Your task to perform on an android device: What's on my calendar tomorrow? Image 0: 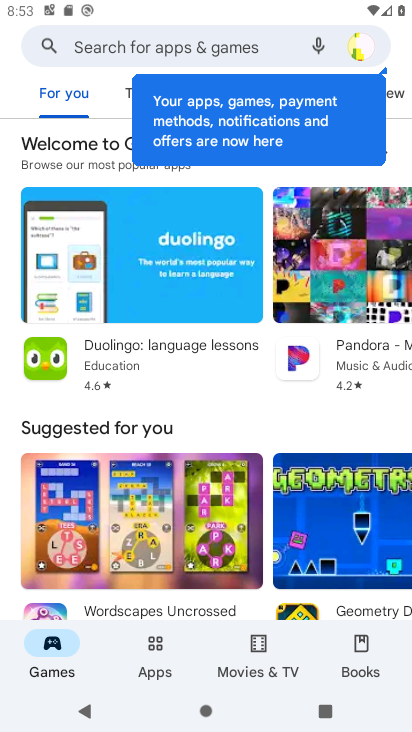
Step 0: press home button
Your task to perform on an android device: What's on my calendar tomorrow? Image 1: 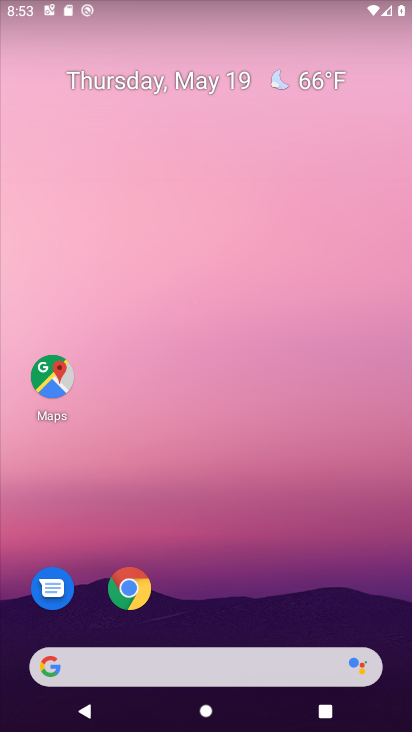
Step 1: drag from (381, 531) to (373, 181)
Your task to perform on an android device: What's on my calendar tomorrow? Image 2: 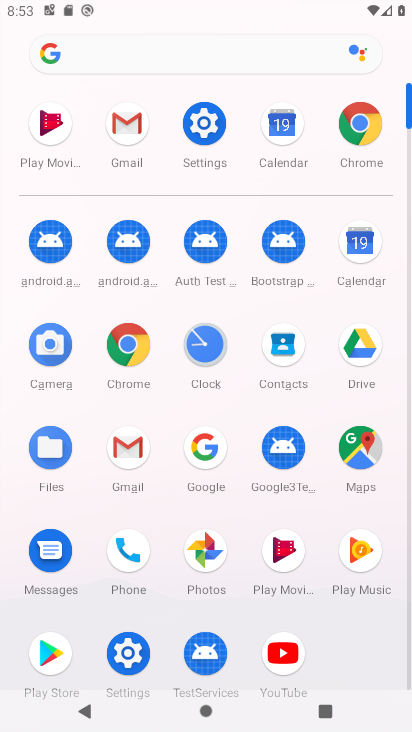
Step 2: drag from (370, 633) to (345, 495)
Your task to perform on an android device: What's on my calendar tomorrow? Image 3: 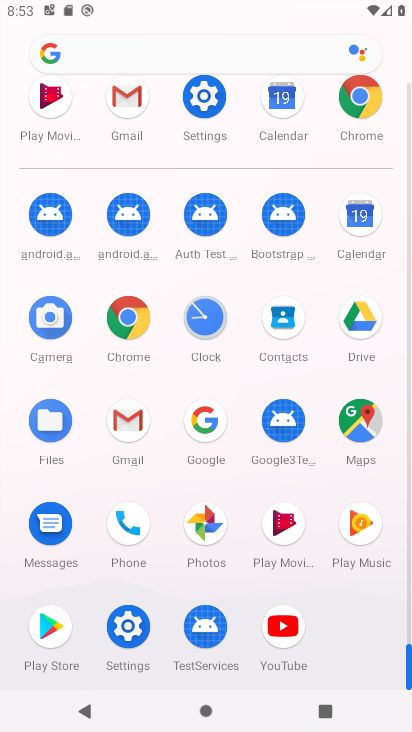
Step 3: drag from (305, 314) to (294, 400)
Your task to perform on an android device: What's on my calendar tomorrow? Image 4: 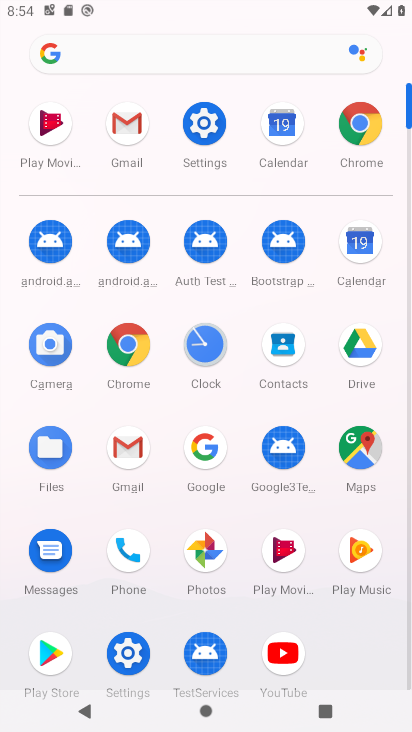
Step 4: drag from (302, 293) to (290, 397)
Your task to perform on an android device: What's on my calendar tomorrow? Image 5: 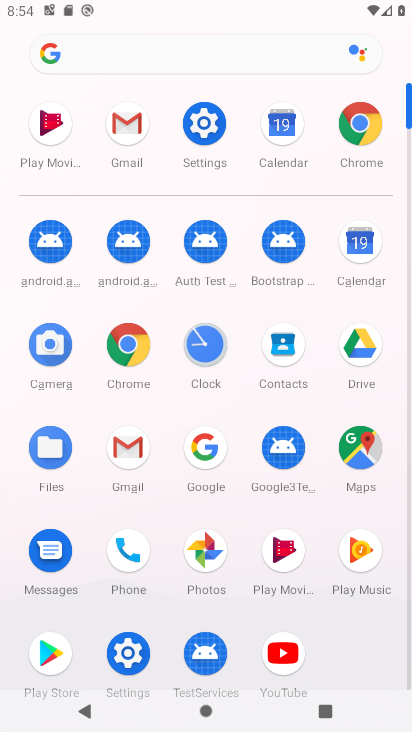
Step 5: click (368, 339)
Your task to perform on an android device: What's on my calendar tomorrow? Image 6: 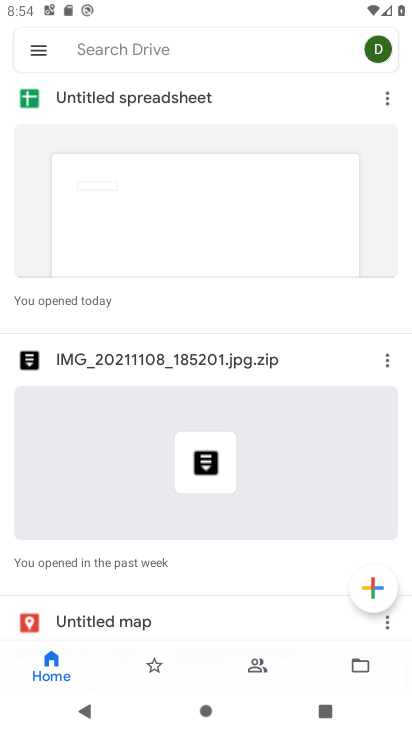
Step 6: press home button
Your task to perform on an android device: What's on my calendar tomorrow? Image 7: 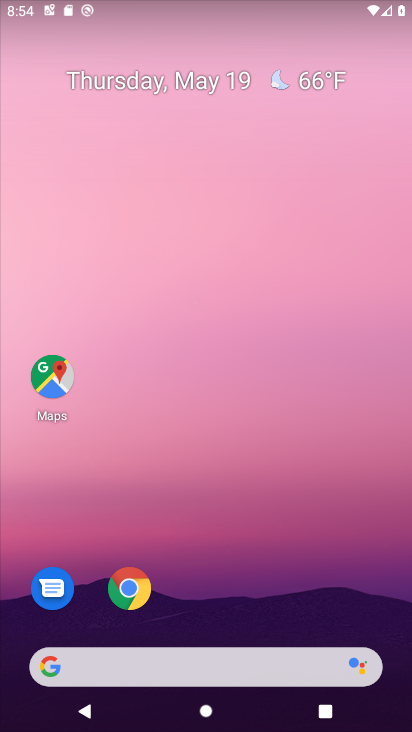
Step 7: drag from (304, 565) to (292, 191)
Your task to perform on an android device: What's on my calendar tomorrow? Image 8: 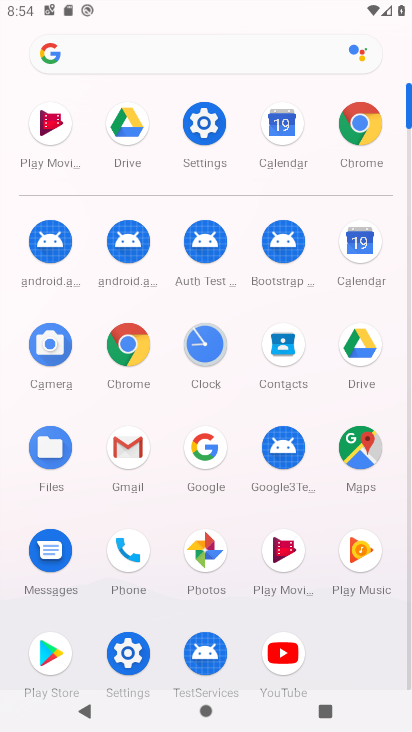
Step 8: click (361, 258)
Your task to perform on an android device: What's on my calendar tomorrow? Image 9: 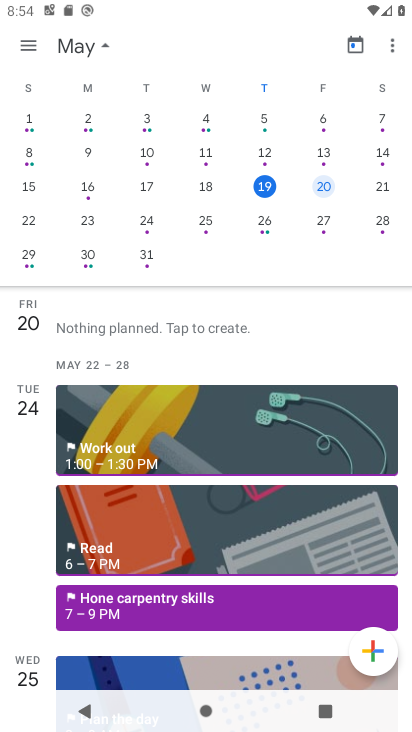
Step 9: click (385, 185)
Your task to perform on an android device: What's on my calendar tomorrow? Image 10: 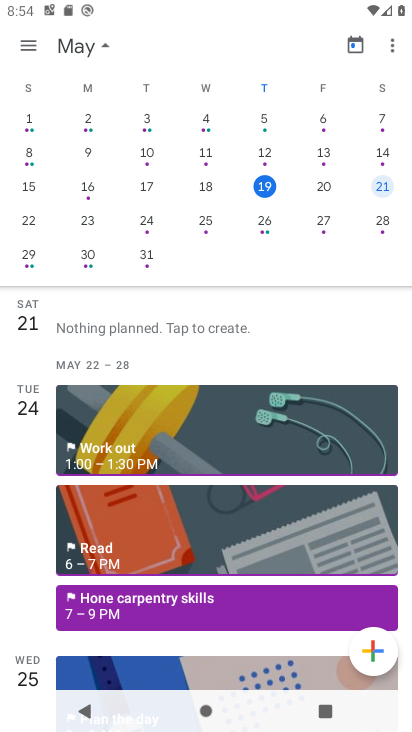
Step 10: task complete